Your task to perform on an android device: Go to Google Image 0: 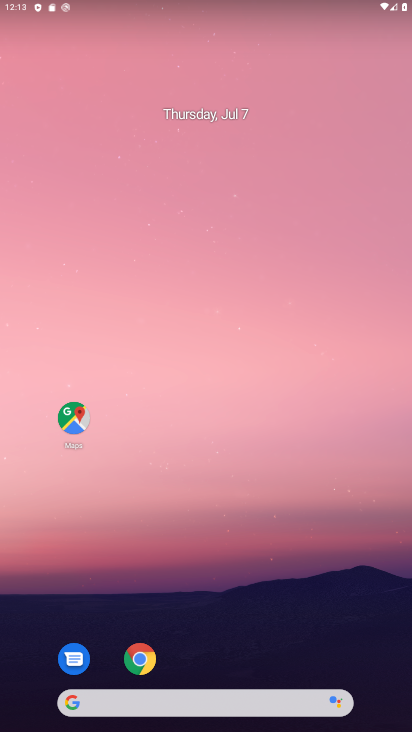
Step 0: click (234, 560)
Your task to perform on an android device: Go to Google Image 1: 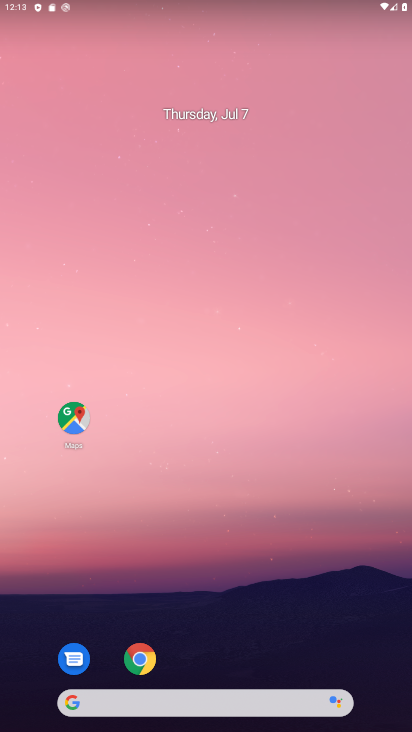
Step 1: drag from (234, 560) to (163, 216)
Your task to perform on an android device: Go to Google Image 2: 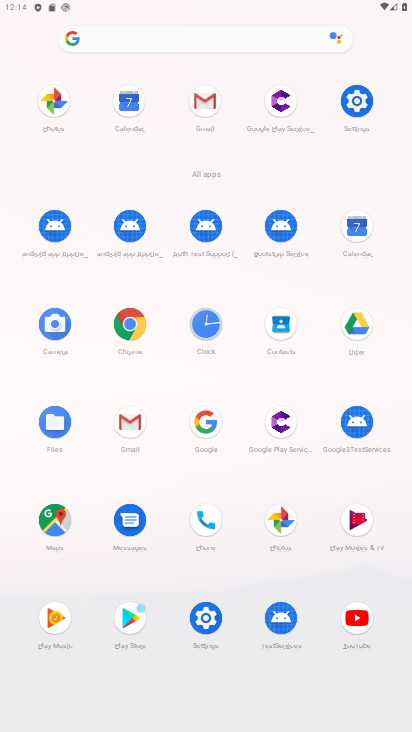
Step 2: click (197, 423)
Your task to perform on an android device: Go to Google Image 3: 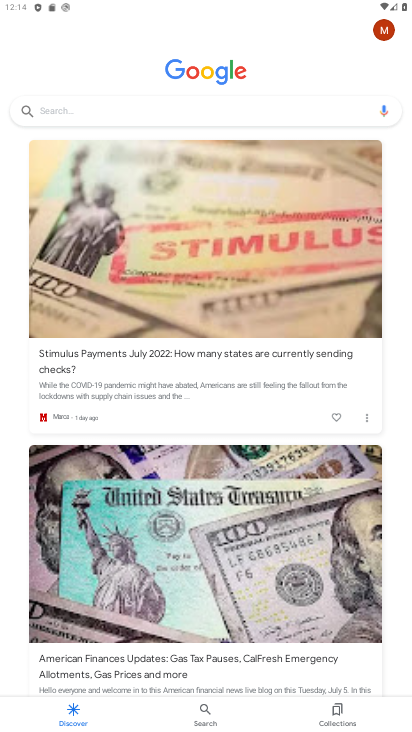
Step 3: task complete